Your task to perform on an android device: Go to Amazon Image 0: 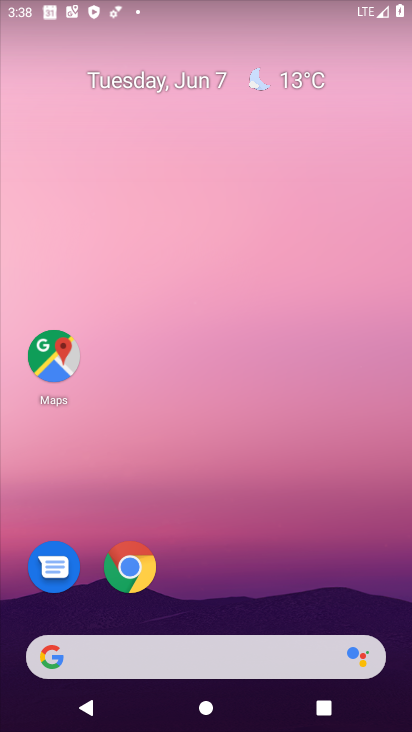
Step 0: click (117, 561)
Your task to perform on an android device: Go to Amazon Image 1: 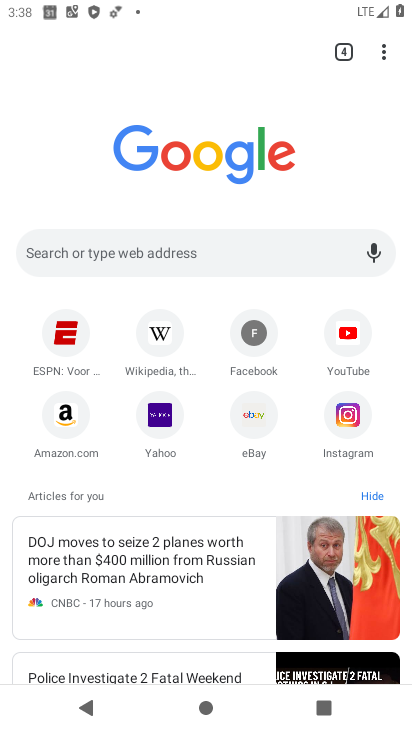
Step 1: click (64, 416)
Your task to perform on an android device: Go to Amazon Image 2: 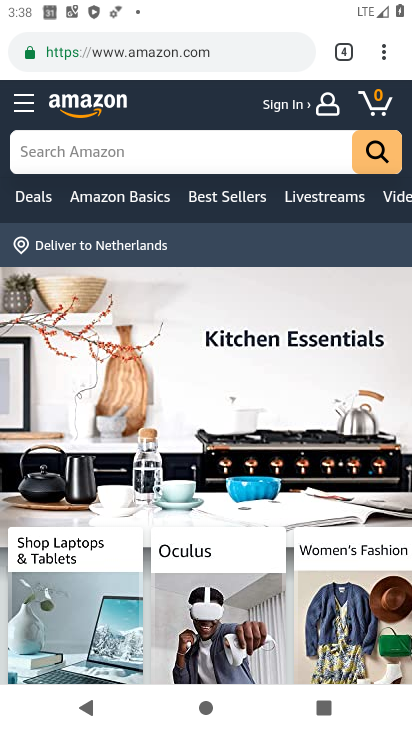
Step 2: task complete